Your task to perform on an android device: Open the stopwatch Image 0: 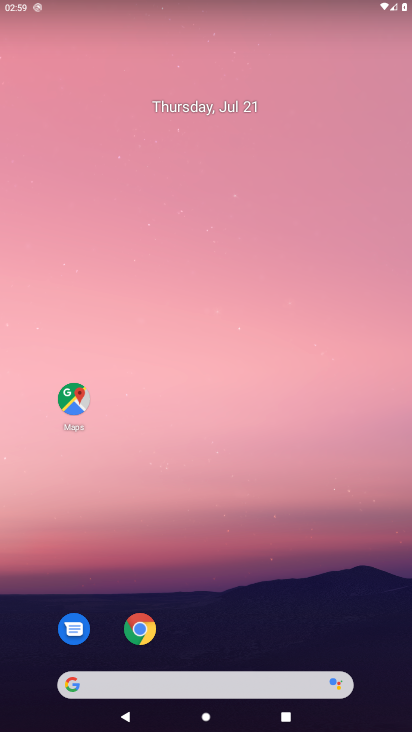
Step 0: drag from (34, 699) to (202, 26)
Your task to perform on an android device: Open the stopwatch Image 1: 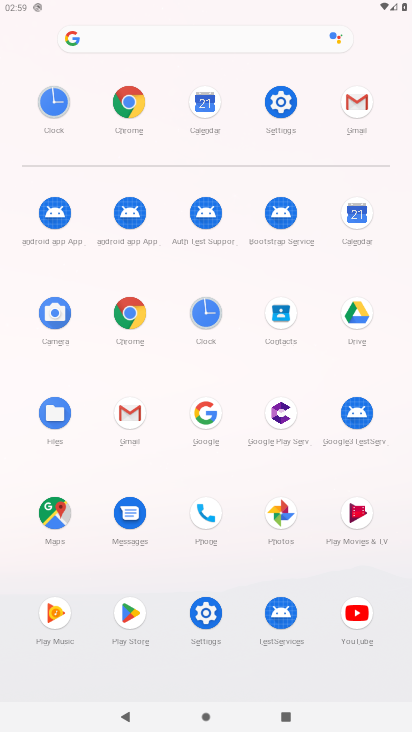
Step 1: click (207, 316)
Your task to perform on an android device: Open the stopwatch Image 2: 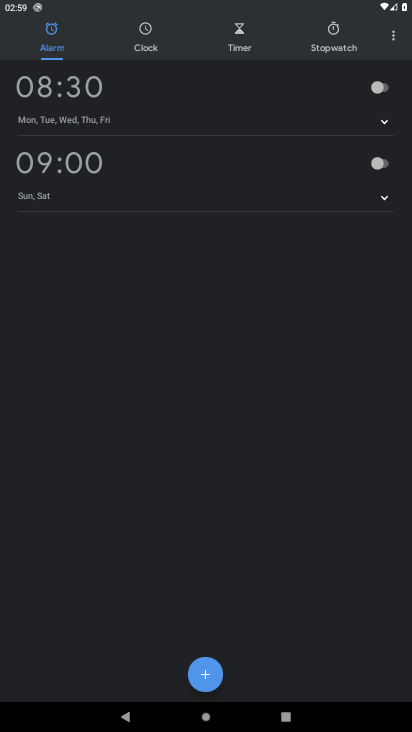
Step 2: click (312, 52)
Your task to perform on an android device: Open the stopwatch Image 3: 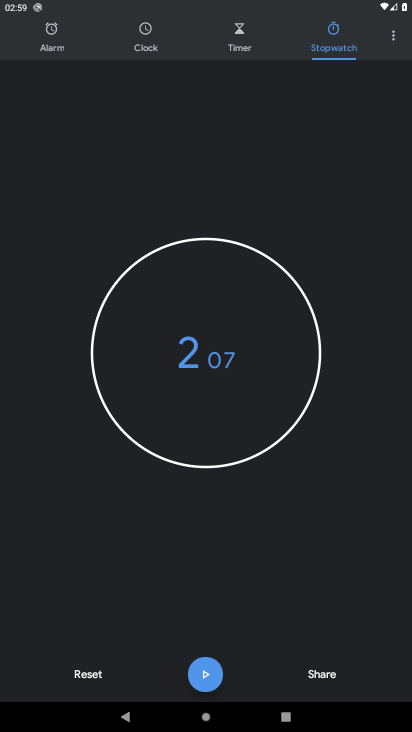
Step 3: click (209, 343)
Your task to perform on an android device: Open the stopwatch Image 4: 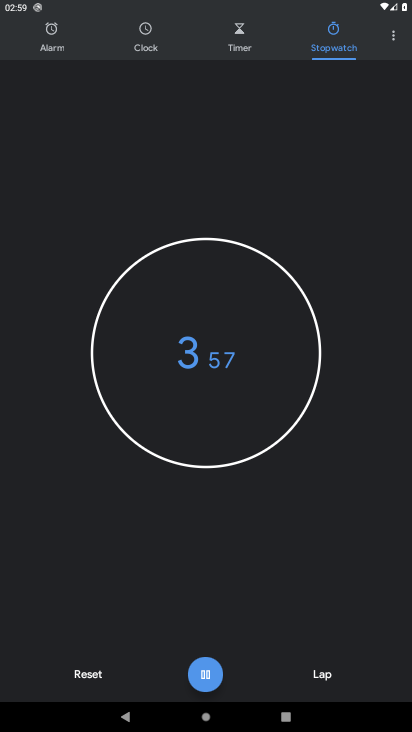
Step 4: click (207, 361)
Your task to perform on an android device: Open the stopwatch Image 5: 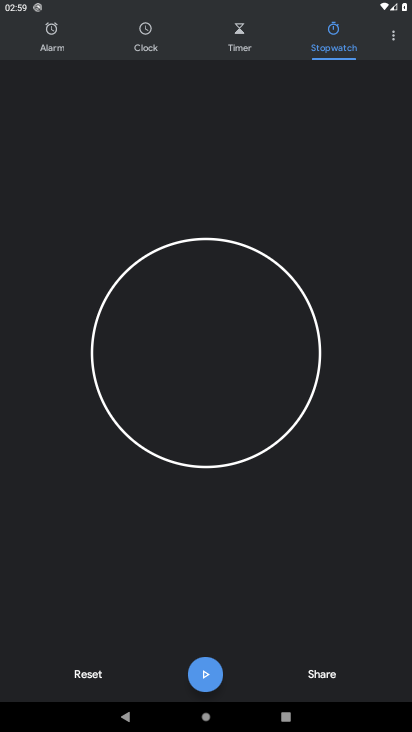
Step 5: task complete